Your task to perform on an android device: What's on my calendar tomorrow? Image 0: 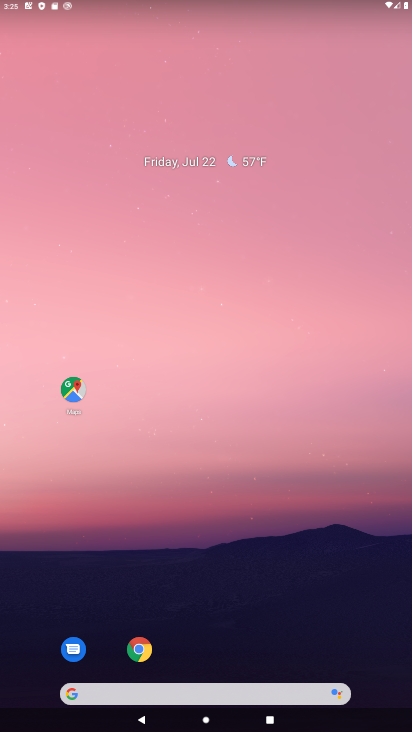
Step 0: drag from (32, 718) to (173, 37)
Your task to perform on an android device: What's on my calendar tomorrow? Image 1: 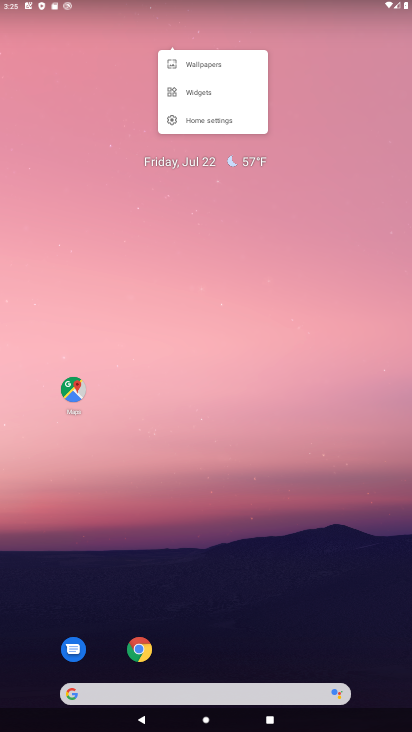
Step 1: drag from (37, 631) to (158, 214)
Your task to perform on an android device: What's on my calendar tomorrow? Image 2: 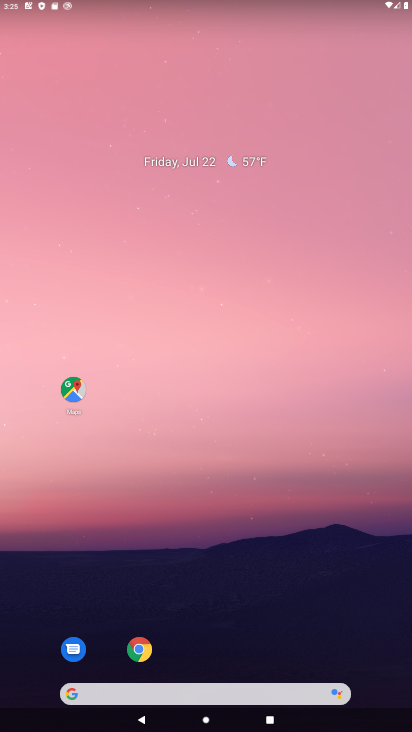
Step 2: drag from (219, 14) to (0, 133)
Your task to perform on an android device: What's on my calendar tomorrow? Image 3: 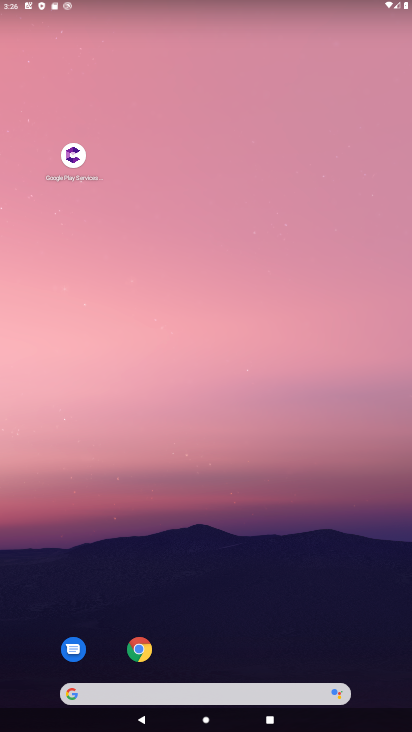
Step 3: drag from (36, 663) to (192, 228)
Your task to perform on an android device: What's on my calendar tomorrow? Image 4: 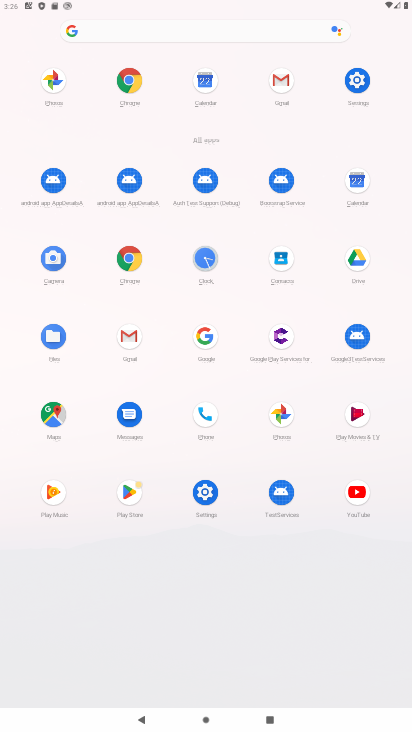
Step 4: click (356, 190)
Your task to perform on an android device: What's on my calendar tomorrow? Image 5: 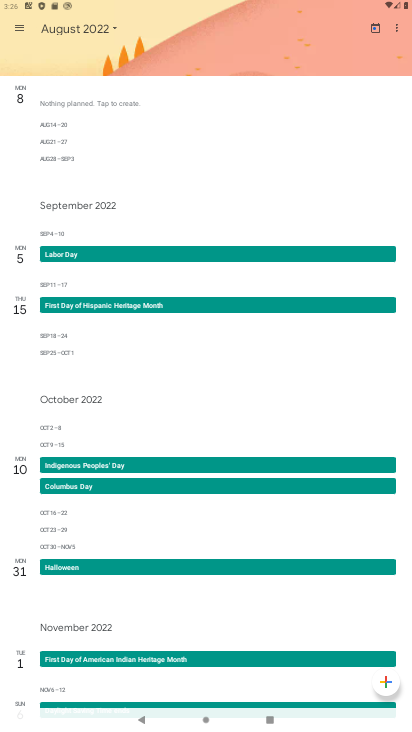
Step 5: click (121, 23)
Your task to perform on an android device: What's on my calendar tomorrow? Image 6: 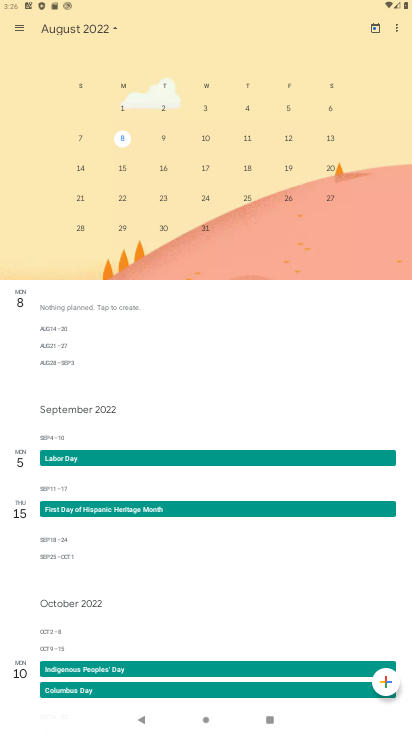
Step 6: task complete